Your task to perform on an android device: toggle notification dots Image 0: 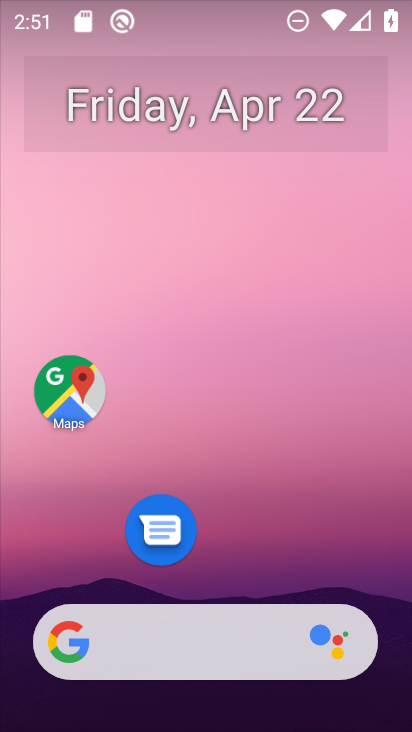
Step 0: drag from (250, 560) to (214, 9)
Your task to perform on an android device: toggle notification dots Image 1: 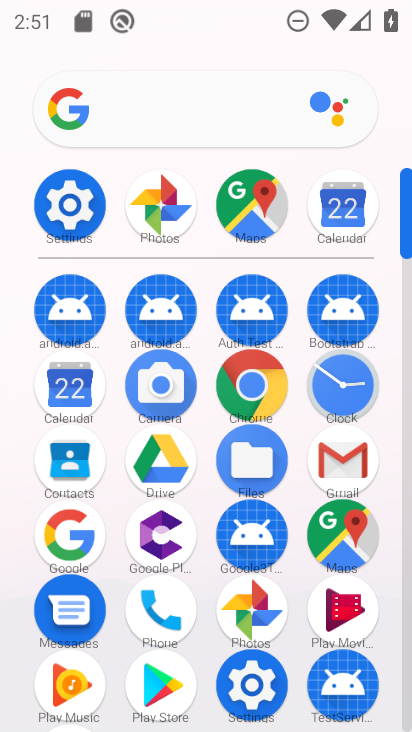
Step 1: click (74, 257)
Your task to perform on an android device: toggle notification dots Image 2: 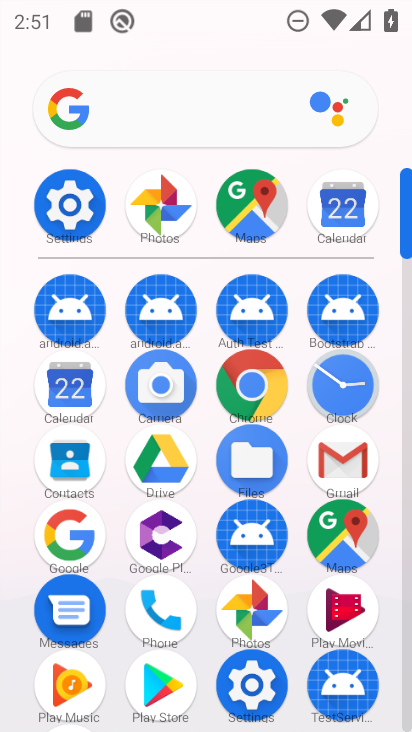
Step 2: click (72, 215)
Your task to perform on an android device: toggle notification dots Image 3: 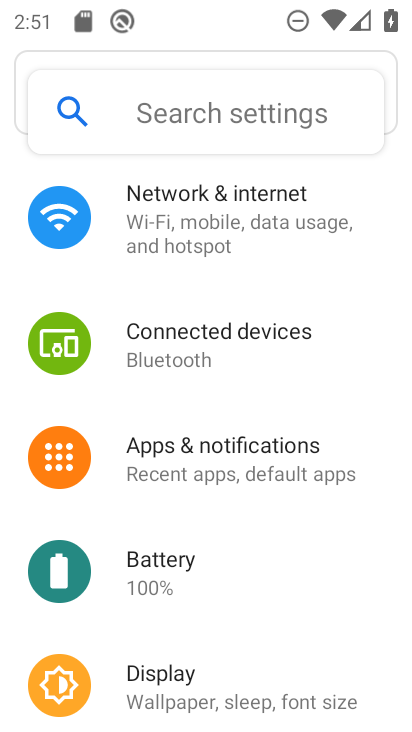
Step 3: click (214, 440)
Your task to perform on an android device: toggle notification dots Image 4: 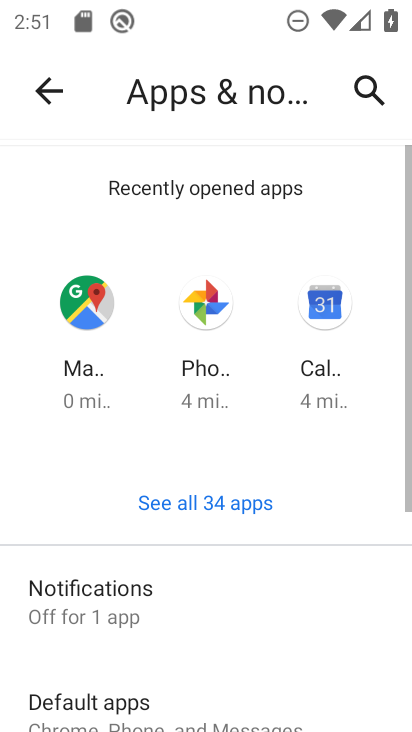
Step 4: drag from (206, 628) to (220, 139)
Your task to perform on an android device: toggle notification dots Image 5: 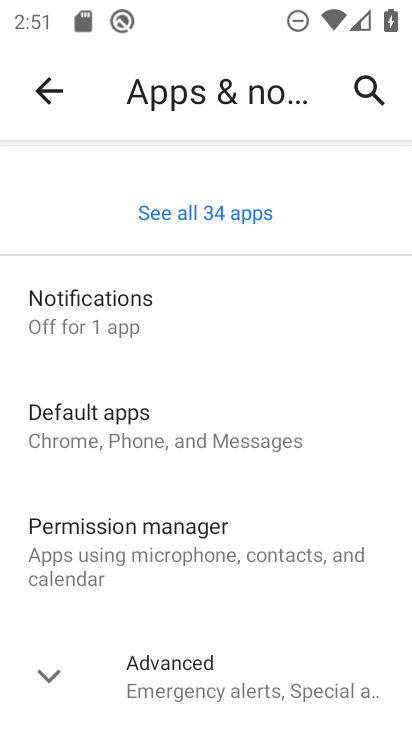
Step 5: click (87, 289)
Your task to perform on an android device: toggle notification dots Image 6: 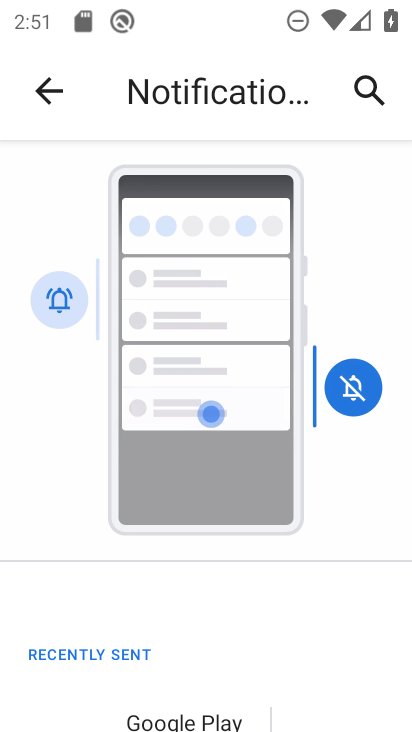
Step 6: drag from (163, 585) to (117, 19)
Your task to perform on an android device: toggle notification dots Image 7: 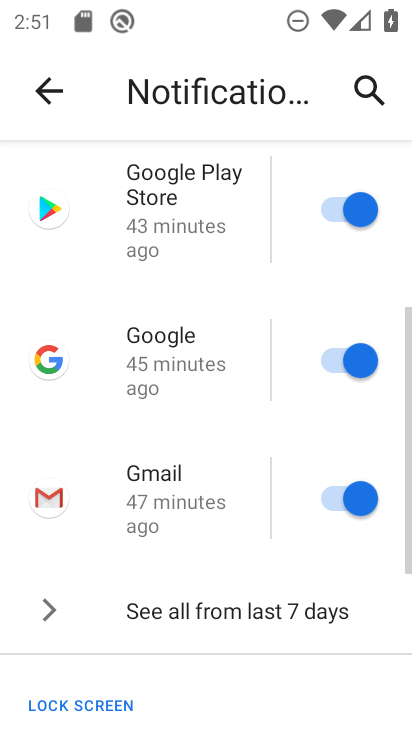
Step 7: drag from (171, 523) to (114, 22)
Your task to perform on an android device: toggle notification dots Image 8: 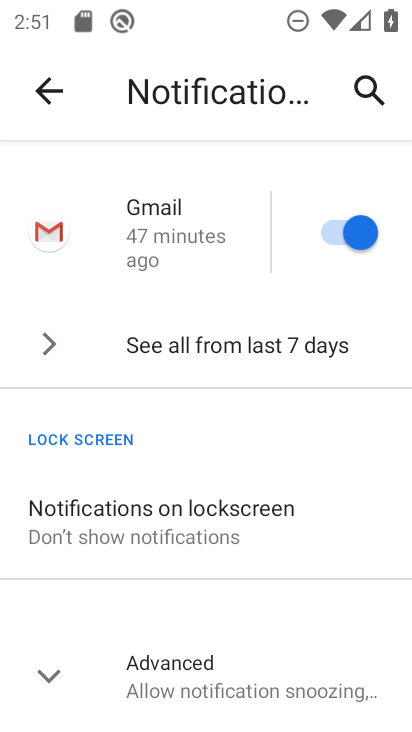
Step 8: click (49, 674)
Your task to perform on an android device: toggle notification dots Image 9: 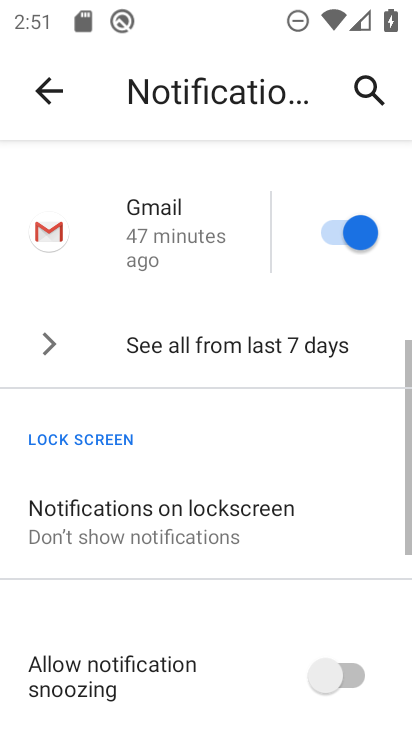
Step 9: drag from (185, 586) to (224, 137)
Your task to perform on an android device: toggle notification dots Image 10: 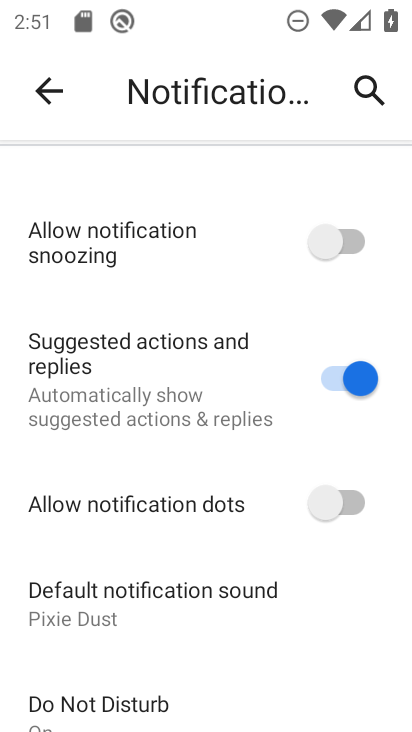
Step 10: drag from (227, 586) to (103, 106)
Your task to perform on an android device: toggle notification dots Image 11: 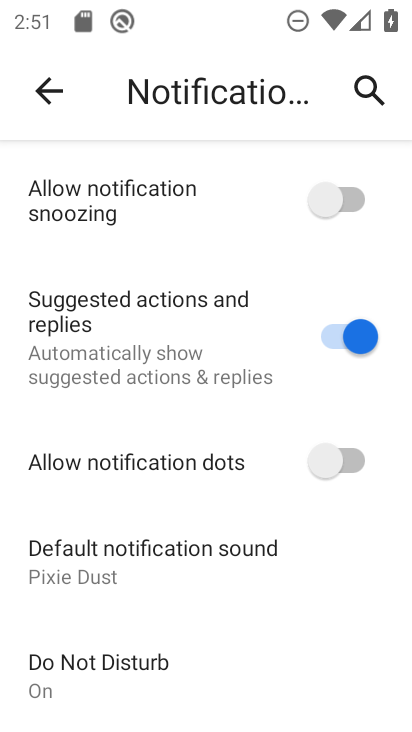
Step 11: click (325, 458)
Your task to perform on an android device: toggle notification dots Image 12: 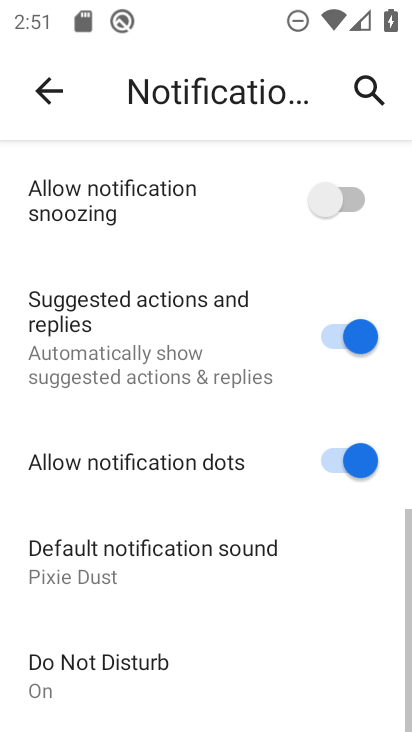
Step 12: task complete